Your task to perform on an android device: Open calendar and show me the first week of next month Image 0: 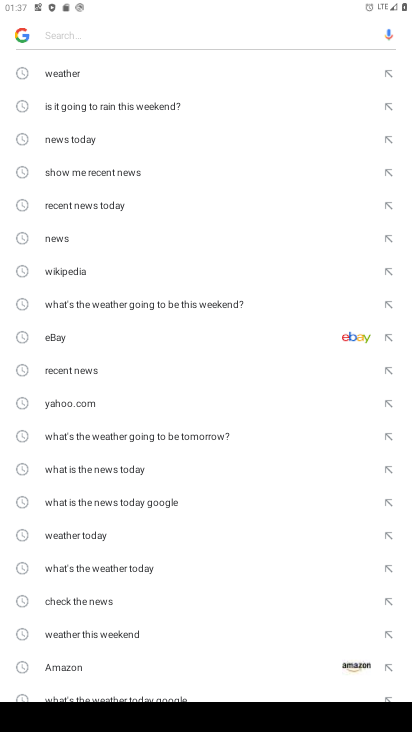
Step 0: press home button
Your task to perform on an android device: Open calendar and show me the first week of next month Image 1: 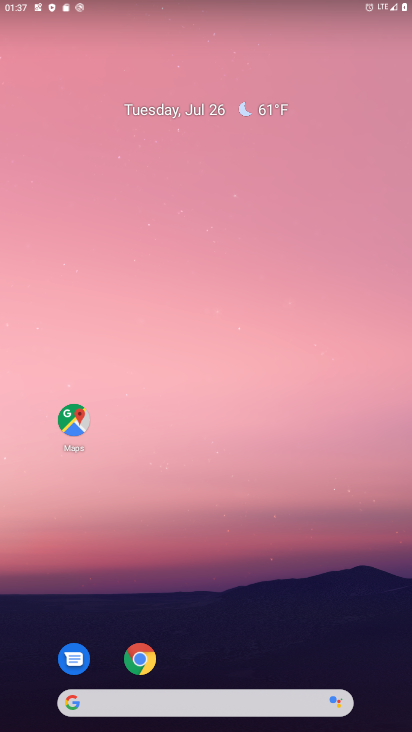
Step 1: drag from (313, 633) to (269, 95)
Your task to perform on an android device: Open calendar and show me the first week of next month Image 2: 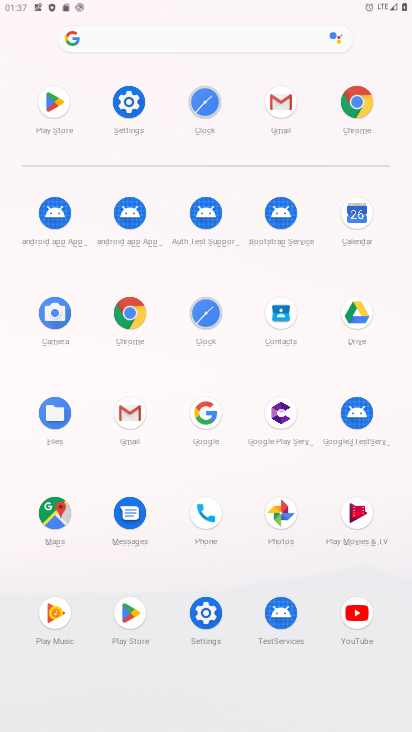
Step 2: click (372, 221)
Your task to perform on an android device: Open calendar and show me the first week of next month Image 3: 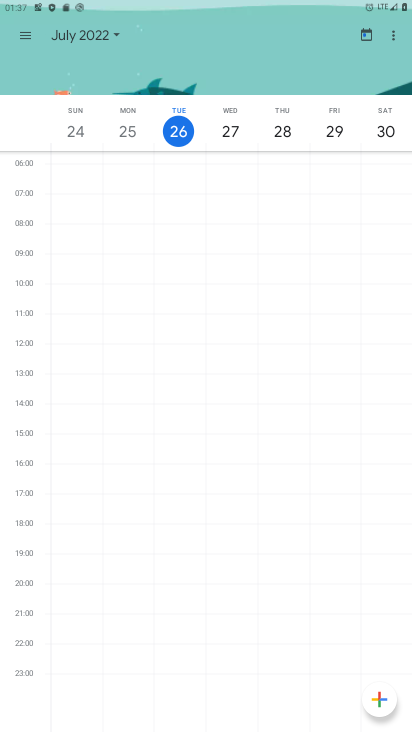
Step 3: click (78, 29)
Your task to perform on an android device: Open calendar and show me the first week of next month Image 4: 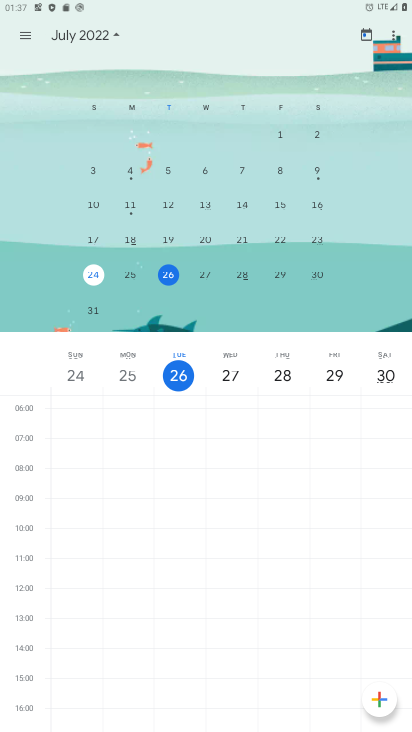
Step 4: drag from (287, 200) to (20, 154)
Your task to perform on an android device: Open calendar and show me the first week of next month Image 5: 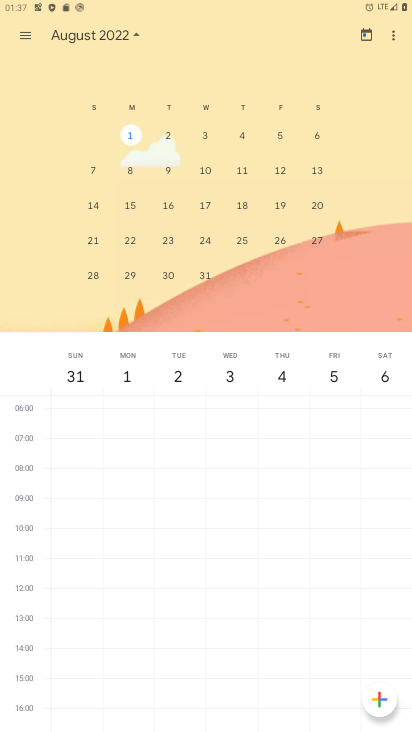
Step 5: click (209, 135)
Your task to perform on an android device: Open calendar and show me the first week of next month Image 6: 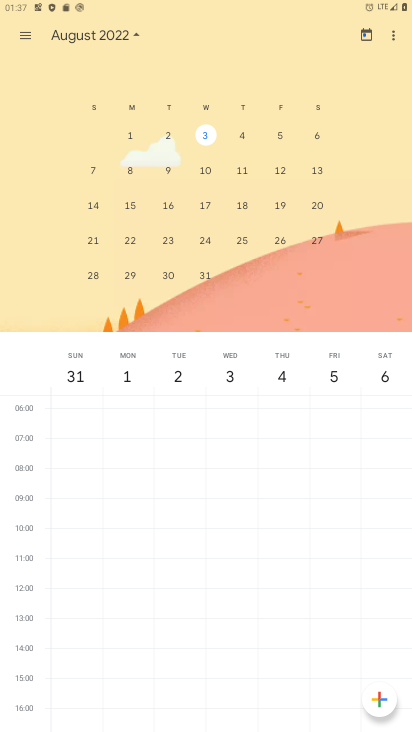
Step 6: task complete